Your task to perform on an android device: Open Wikipedia Image 0: 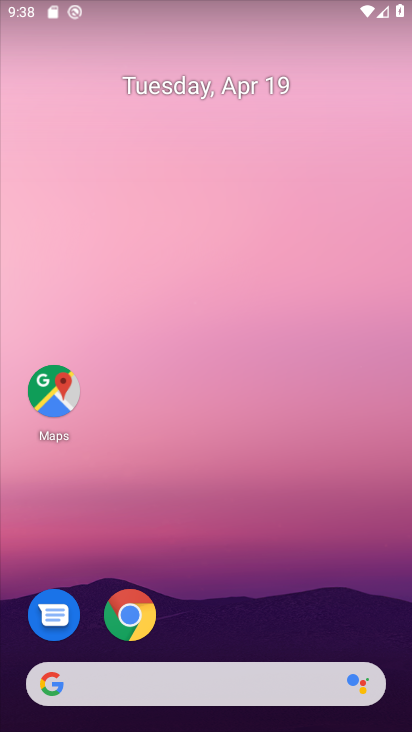
Step 0: drag from (330, 569) to (208, 3)
Your task to perform on an android device: Open Wikipedia Image 1: 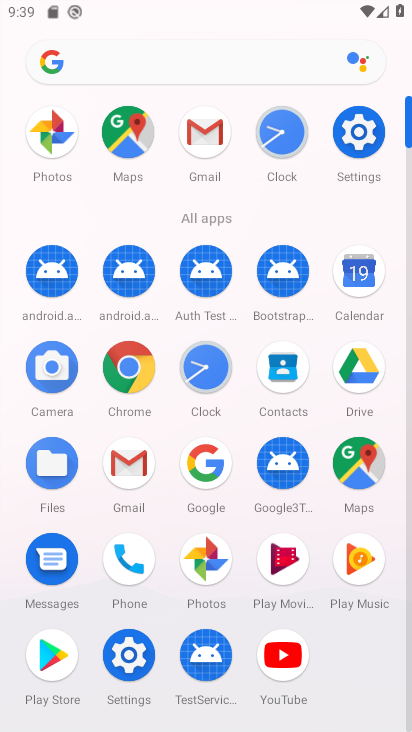
Step 1: click (113, 372)
Your task to perform on an android device: Open Wikipedia Image 2: 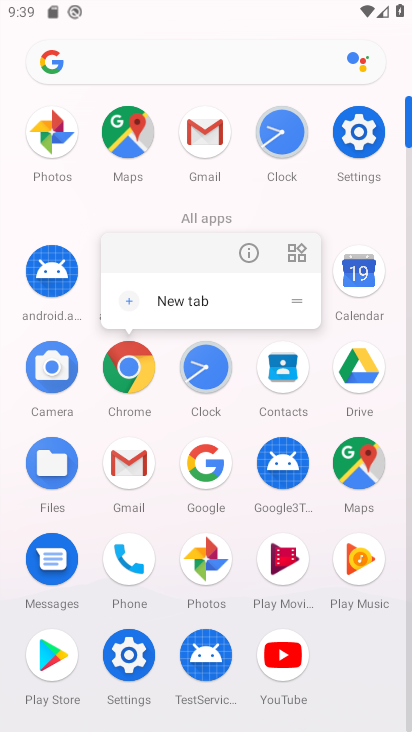
Step 2: click (113, 372)
Your task to perform on an android device: Open Wikipedia Image 3: 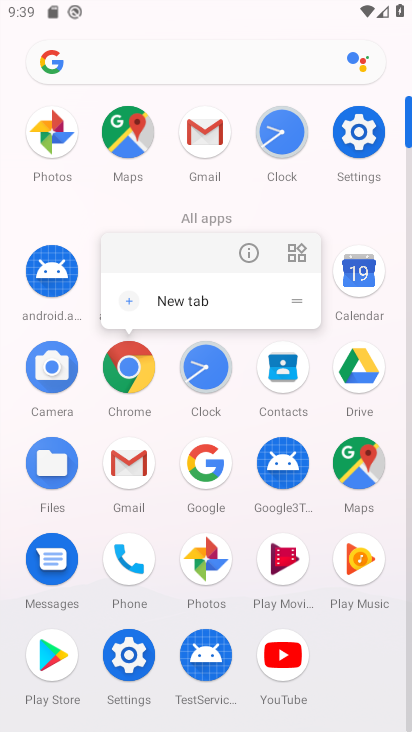
Step 3: click (113, 372)
Your task to perform on an android device: Open Wikipedia Image 4: 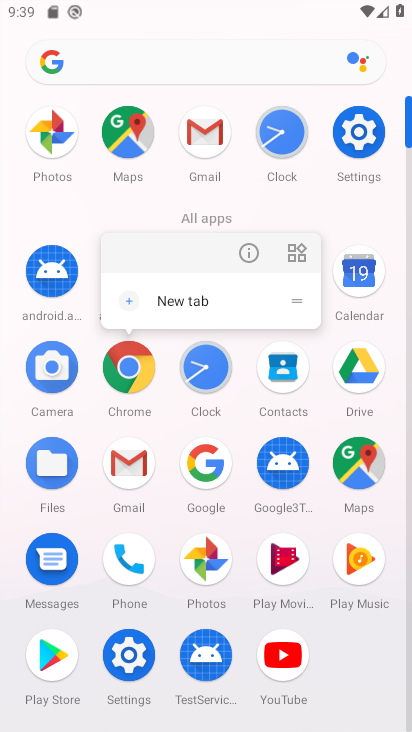
Step 4: click (112, 373)
Your task to perform on an android device: Open Wikipedia Image 5: 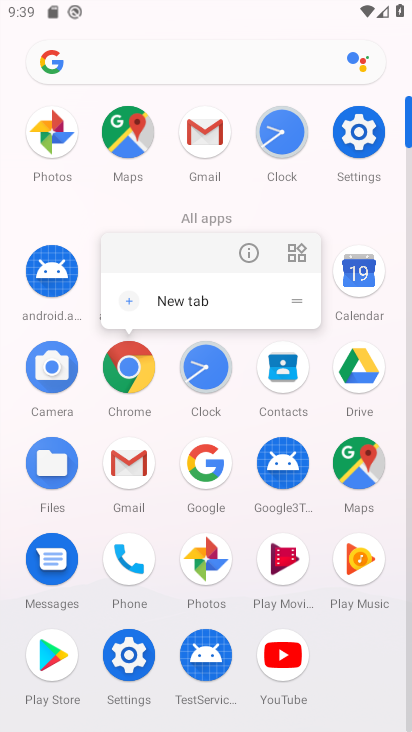
Step 5: click (136, 353)
Your task to perform on an android device: Open Wikipedia Image 6: 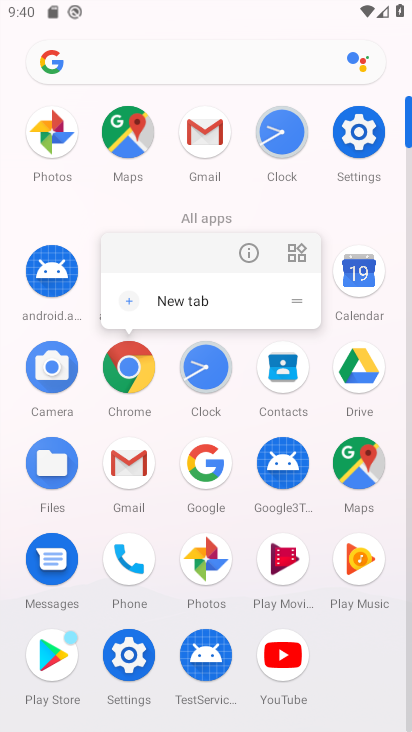
Step 6: click (141, 383)
Your task to perform on an android device: Open Wikipedia Image 7: 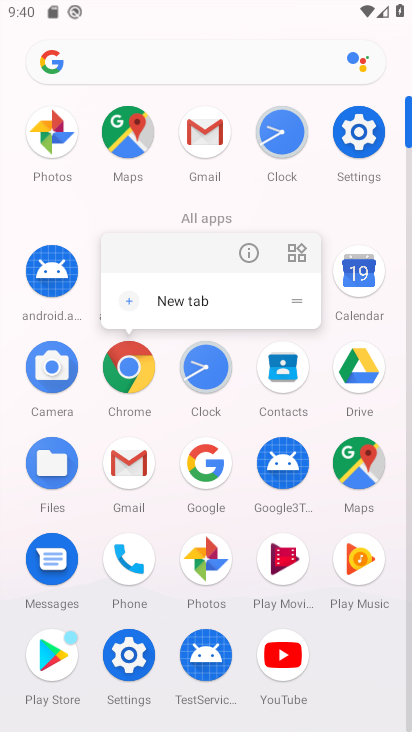
Step 7: click (141, 383)
Your task to perform on an android device: Open Wikipedia Image 8: 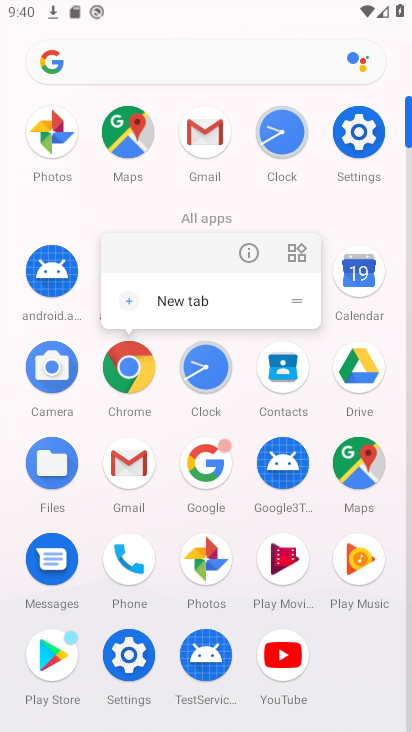
Step 8: click (137, 380)
Your task to perform on an android device: Open Wikipedia Image 9: 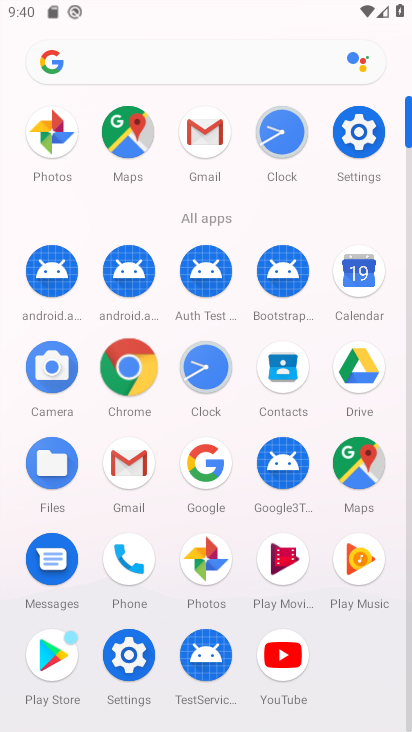
Step 9: click (137, 380)
Your task to perform on an android device: Open Wikipedia Image 10: 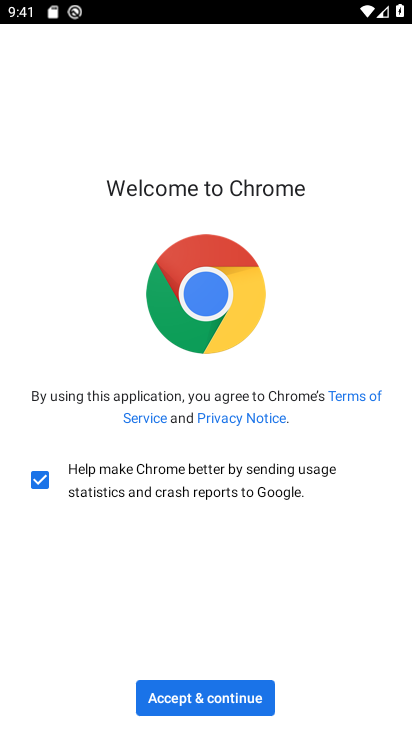
Step 10: click (238, 701)
Your task to perform on an android device: Open Wikipedia Image 11: 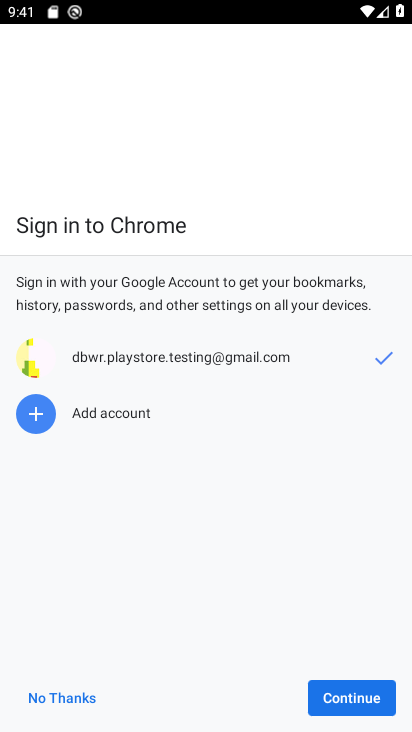
Step 11: click (355, 697)
Your task to perform on an android device: Open Wikipedia Image 12: 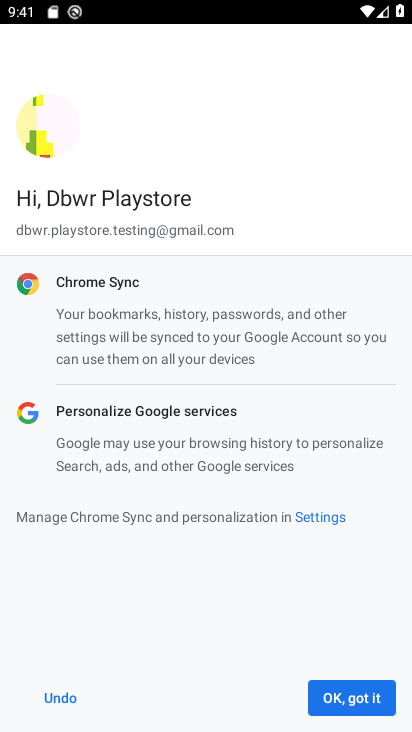
Step 12: click (373, 693)
Your task to perform on an android device: Open Wikipedia Image 13: 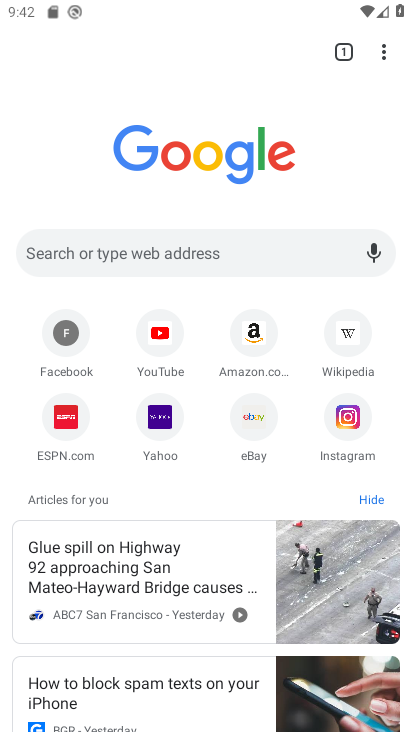
Step 13: click (344, 337)
Your task to perform on an android device: Open Wikipedia Image 14: 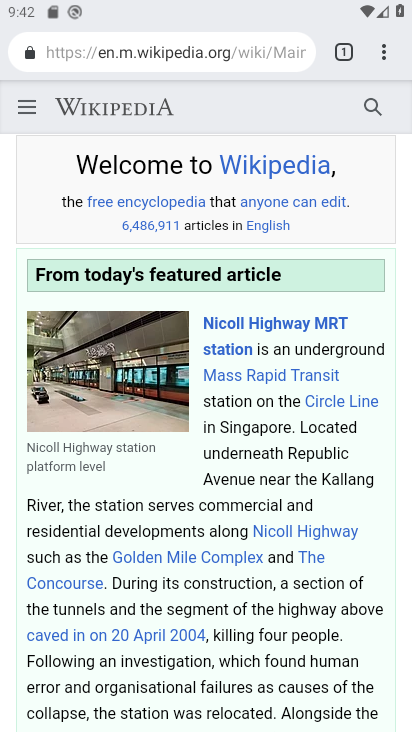
Step 14: task complete